Your task to perform on an android device: Is it going to rain this weekend? Image 0: 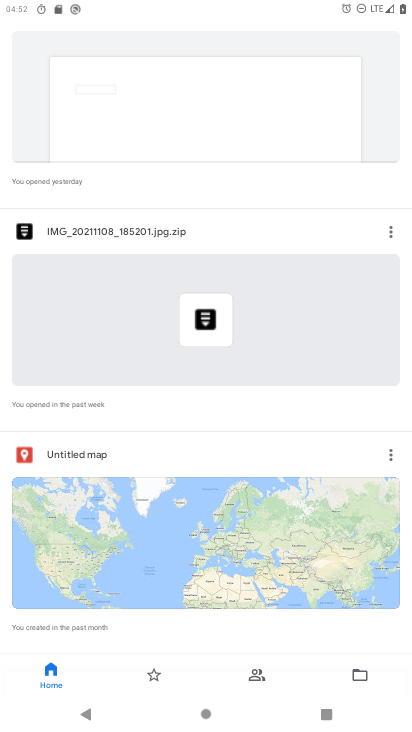
Step 0: press home button
Your task to perform on an android device: Is it going to rain this weekend? Image 1: 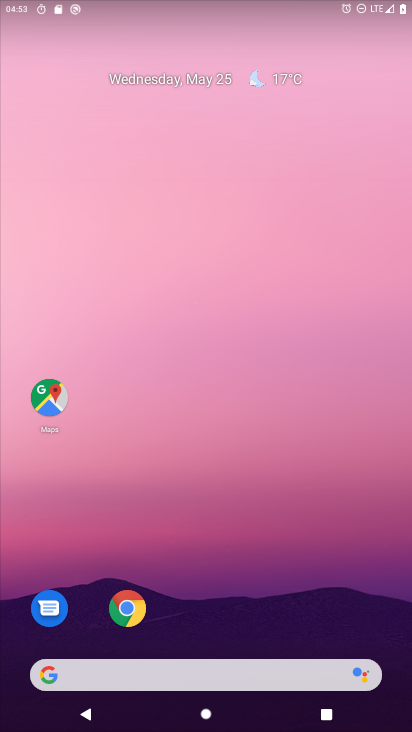
Step 1: drag from (260, 587) to (209, 143)
Your task to perform on an android device: Is it going to rain this weekend? Image 2: 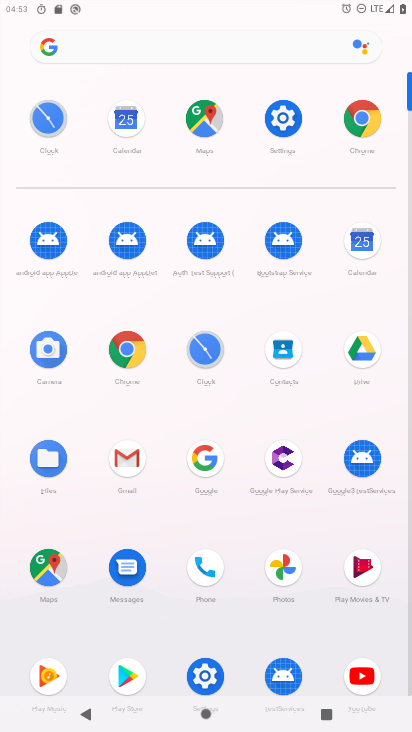
Step 2: press home button
Your task to perform on an android device: Is it going to rain this weekend? Image 3: 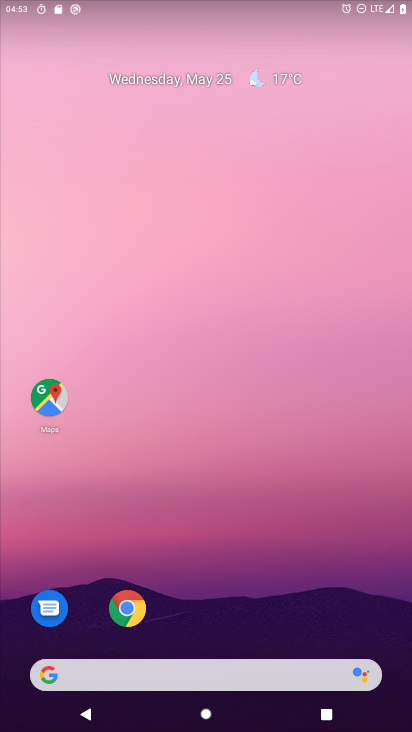
Step 3: click (292, 83)
Your task to perform on an android device: Is it going to rain this weekend? Image 4: 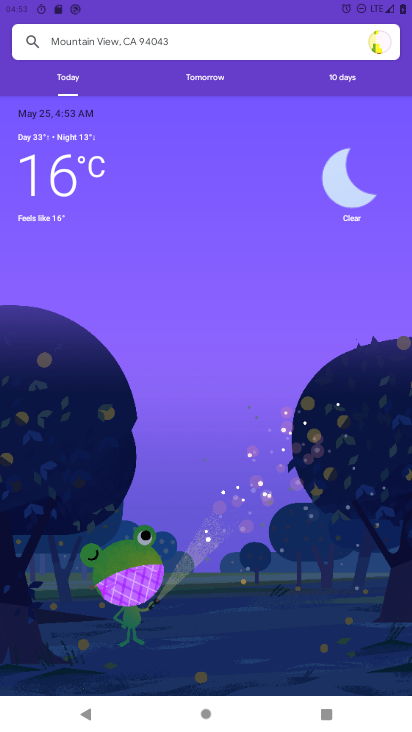
Step 4: click (338, 81)
Your task to perform on an android device: Is it going to rain this weekend? Image 5: 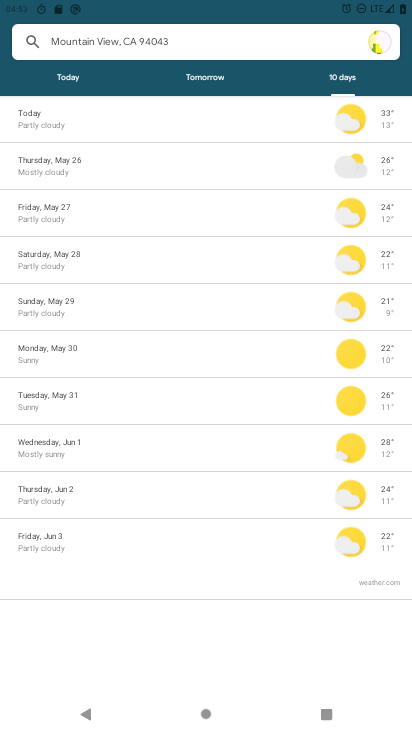
Step 5: task complete